Your task to perform on an android device: turn off airplane mode Image 0: 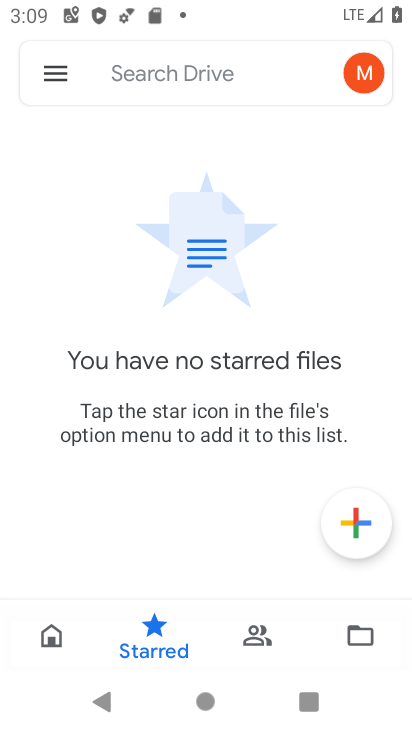
Step 0: press home button
Your task to perform on an android device: turn off airplane mode Image 1: 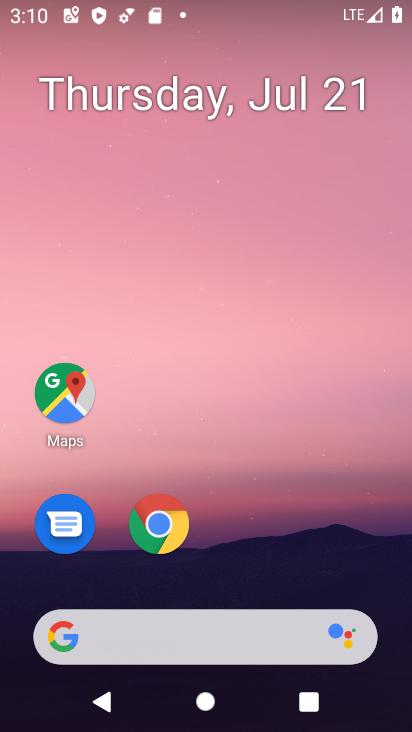
Step 1: drag from (278, 519) to (300, 25)
Your task to perform on an android device: turn off airplane mode Image 2: 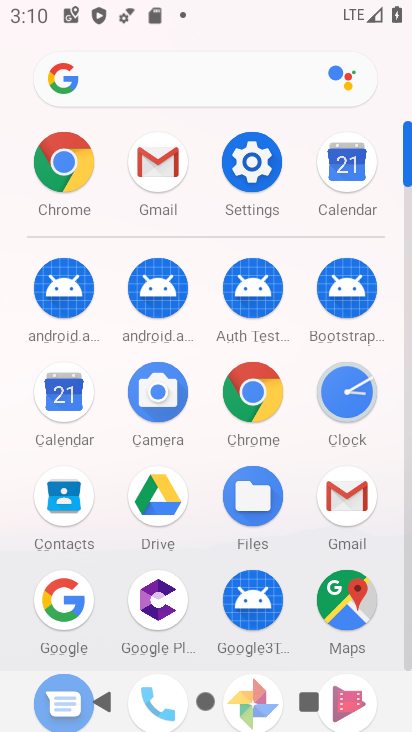
Step 2: click (272, 160)
Your task to perform on an android device: turn off airplane mode Image 3: 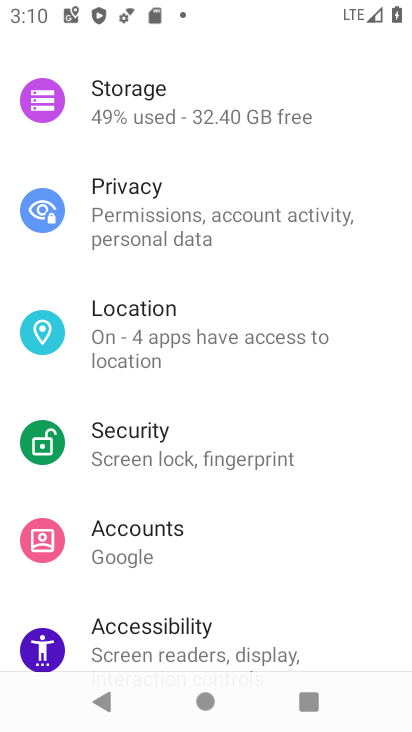
Step 3: drag from (241, 280) to (250, 656)
Your task to perform on an android device: turn off airplane mode Image 4: 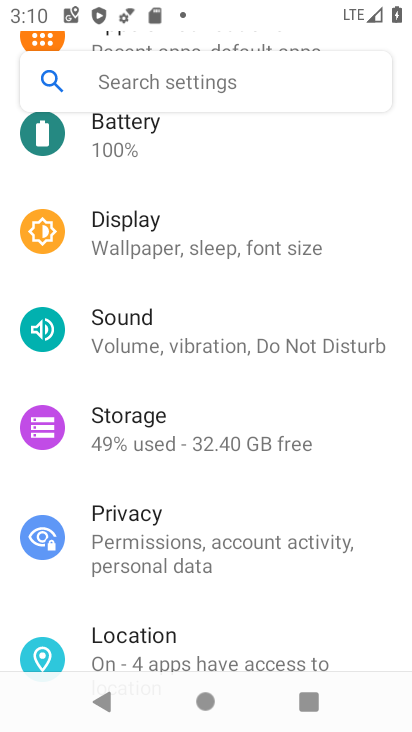
Step 4: drag from (245, 309) to (247, 632)
Your task to perform on an android device: turn off airplane mode Image 5: 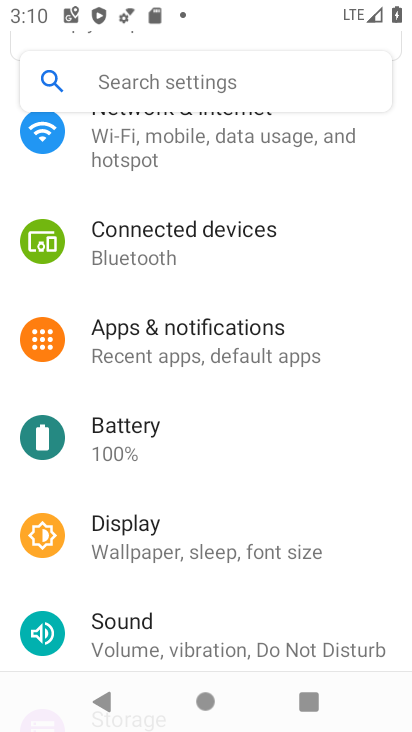
Step 5: drag from (229, 255) to (242, 607)
Your task to perform on an android device: turn off airplane mode Image 6: 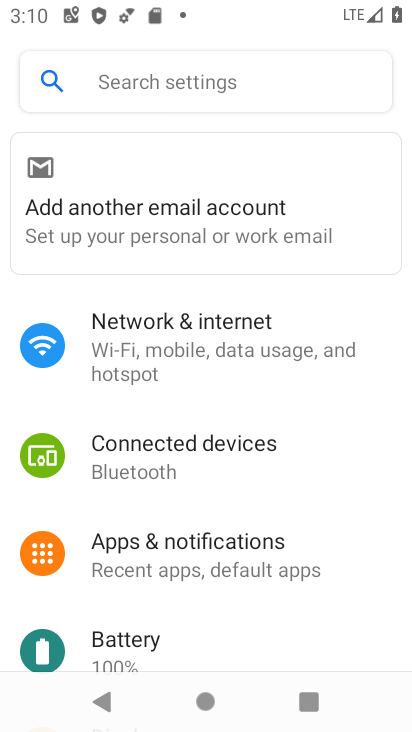
Step 6: click (232, 346)
Your task to perform on an android device: turn off airplane mode Image 7: 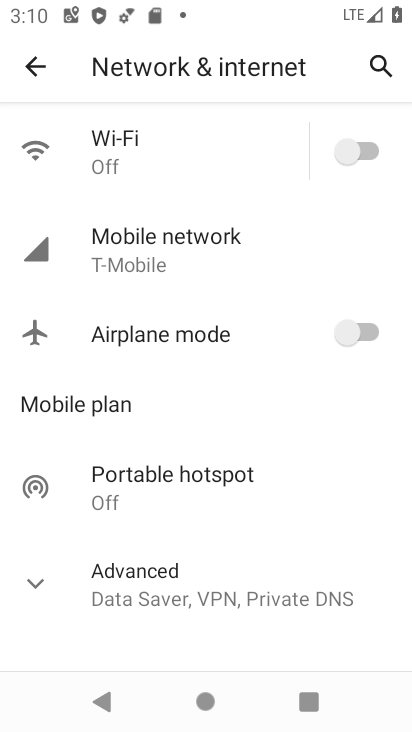
Step 7: task complete